Your task to perform on an android device: Go to CNN.com Image 0: 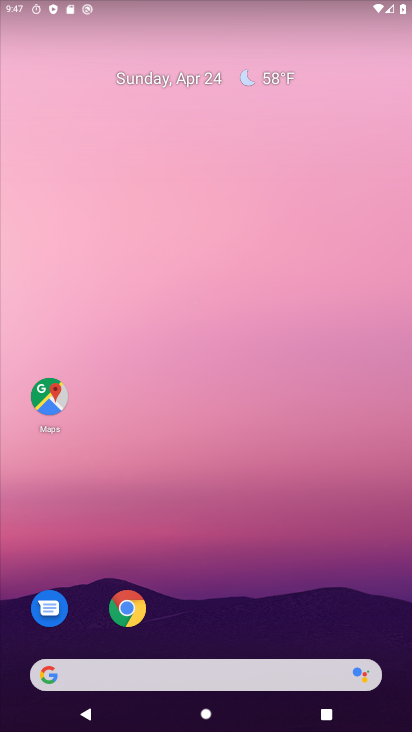
Step 0: drag from (360, 610) to (375, 95)
Your task to perform on an android device: Go to CNN.com Image 1: 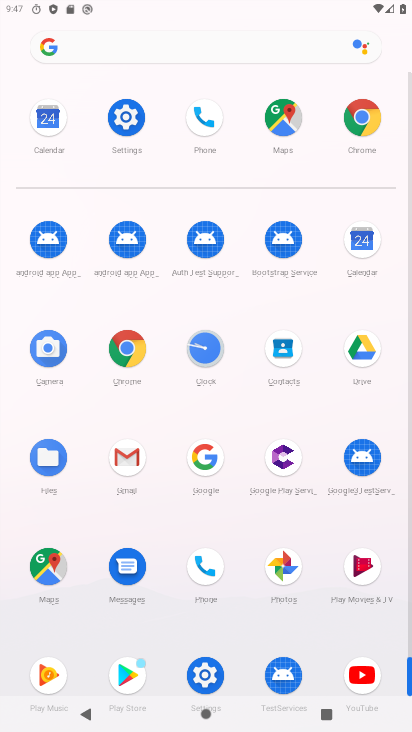
Step 1: click (131, 359)
Your task to perform on an android device: Go to CNN.com Image 2: 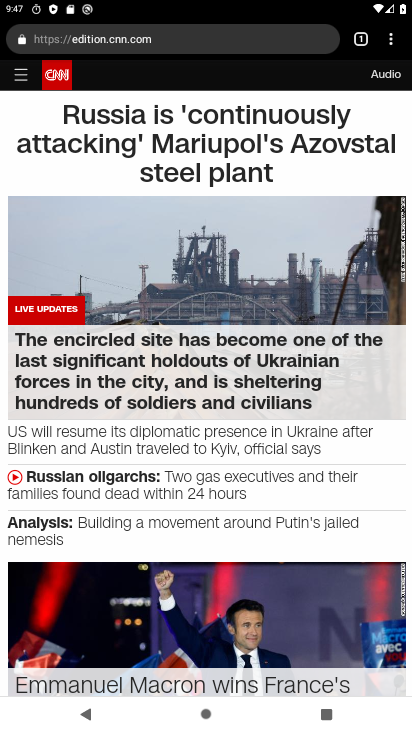
Step 2: task complete